Your task to perform on an android device: Open battery settings Image 0: 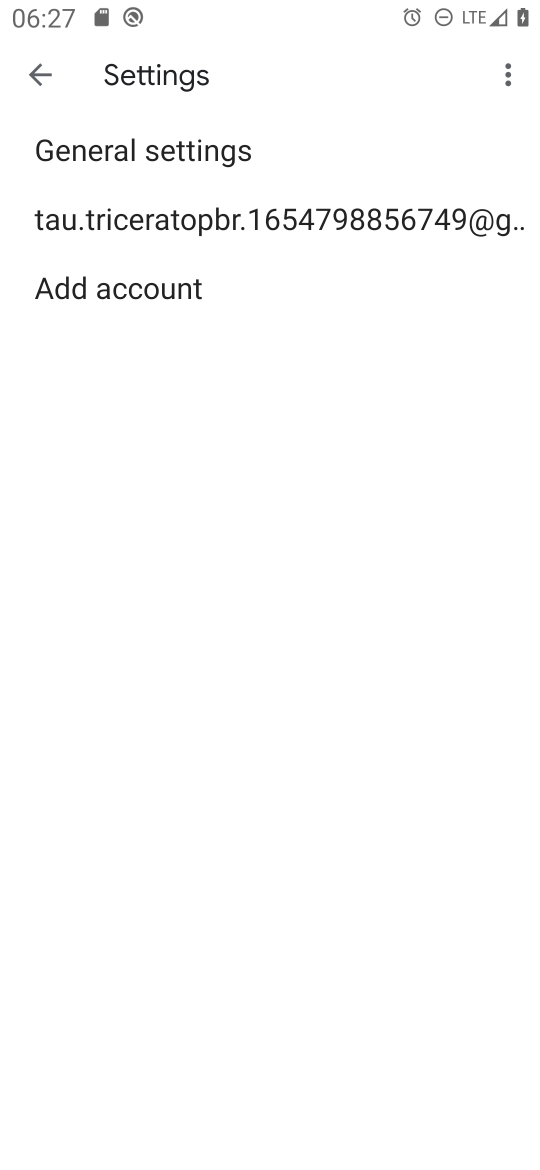
Step 0: press home button
Your task to perform on an android device: Open battery settings Image 1: 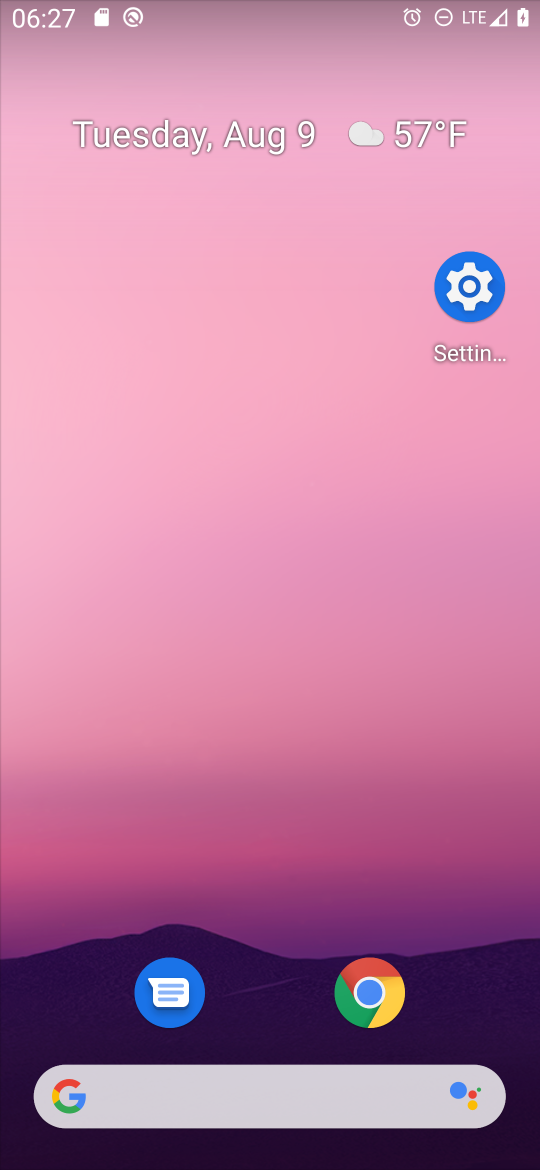
Step 1: drag from (270, 1070) to (322, 258)
Your task to perform on an android device: Open battery settings Image 2: 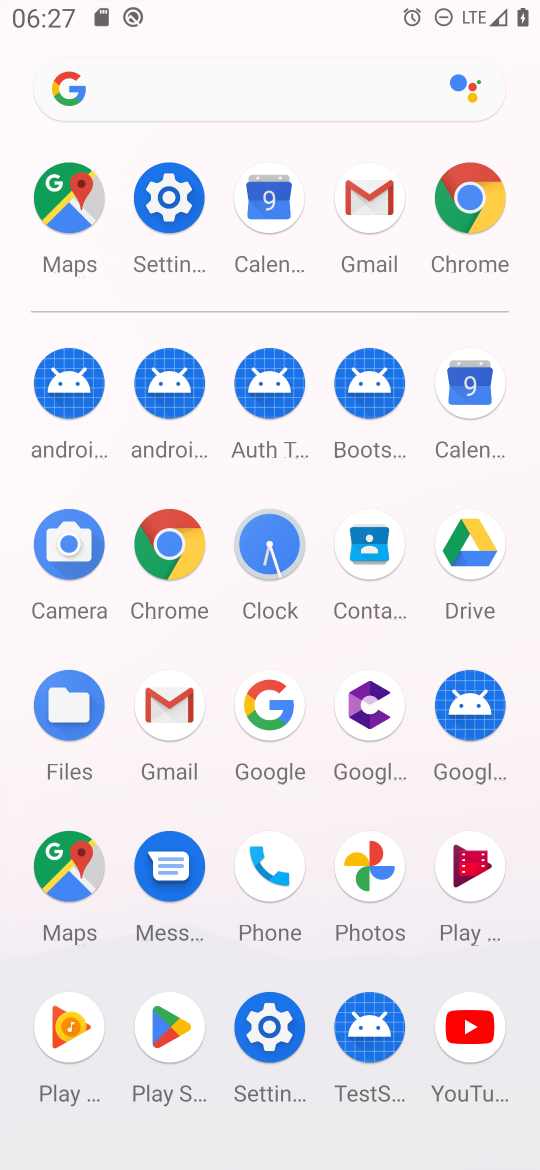
Step 2: click (175, 196)
Your task to perform on an android device: Open battery settings Image 3: 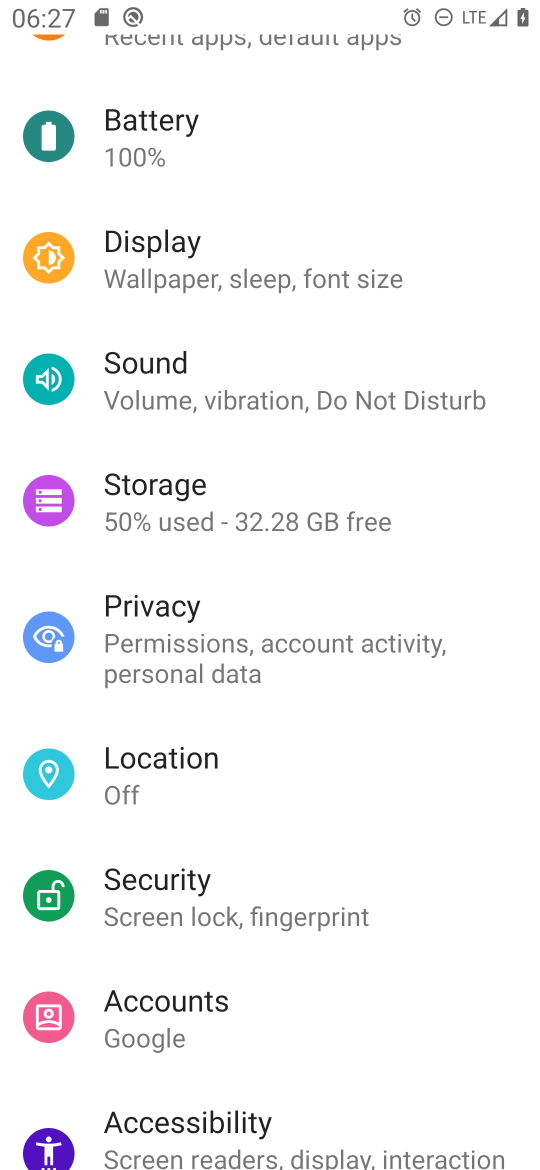
Step 3: click (192, 133)
Your task to perform on an android device: Open battery settings Image 4: 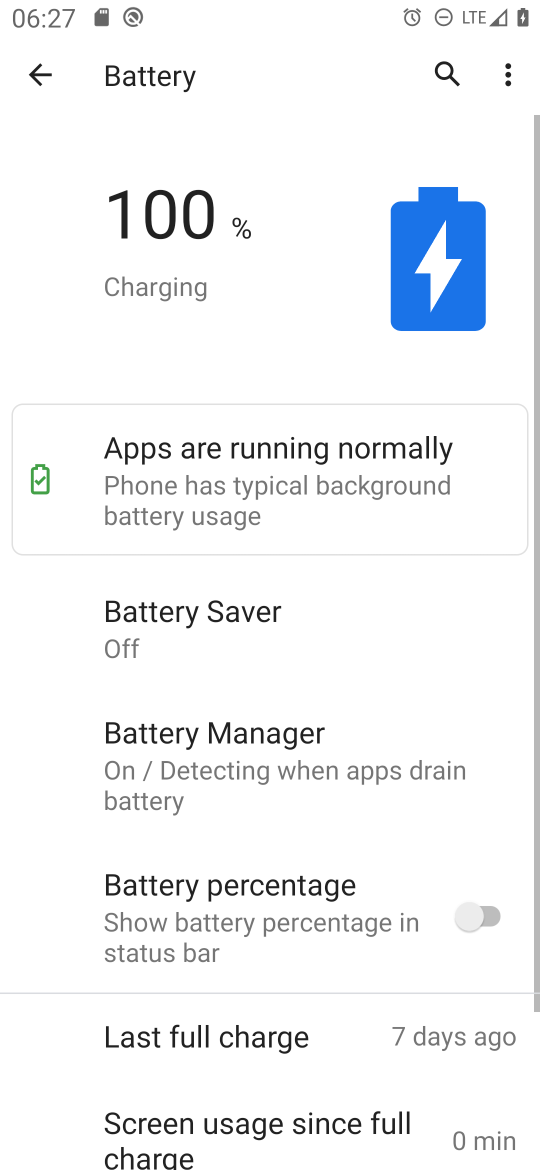
Step 4: task complete